Your task to perform on an android device: Open Chrome and go to the settings page Image 0: 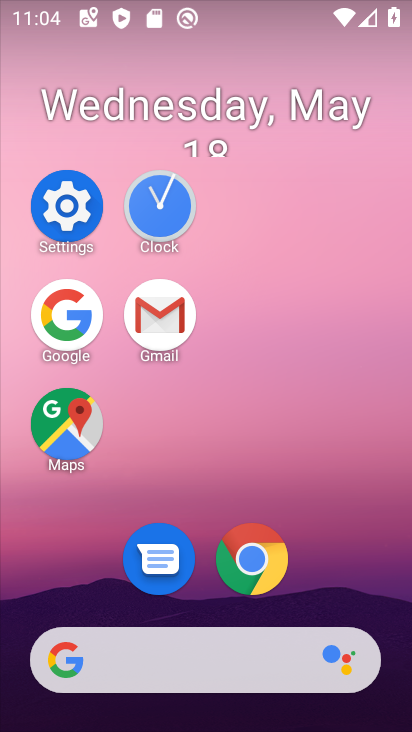
Step 0: click (264, 571)
Your task to perform on an android device: Open Chrome and go to the settings page Image 1: 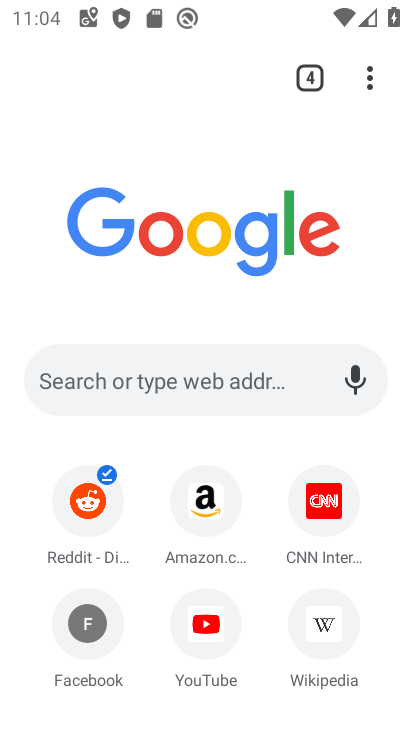
Step 1: click (376, 71)
Your task to perform on an android device: Open Chrome and go to the settings page Image 2: 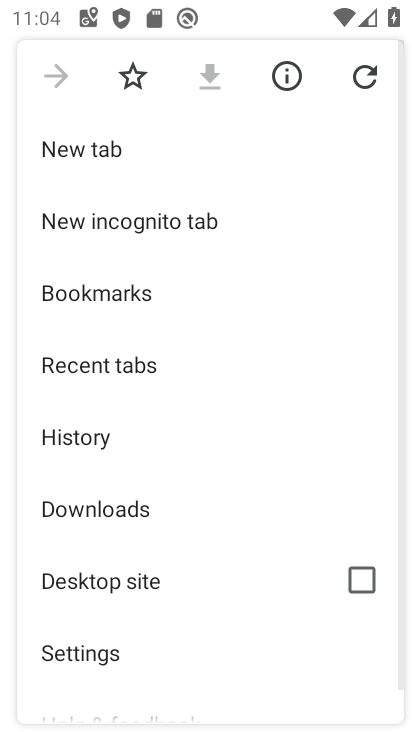
Step 2: click (134, 656)
Your task to perform on an android device: Open Chrome and go to the settings page Image 3: 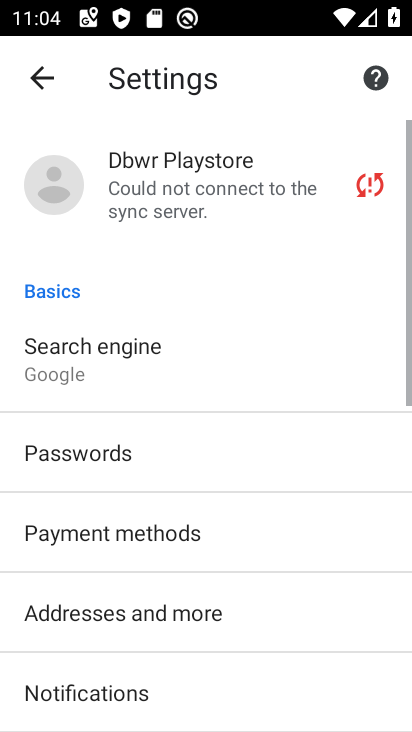
Step 3: task complete